Your task to perform on an android device: What's the weather going to be this weekend? Image 0: 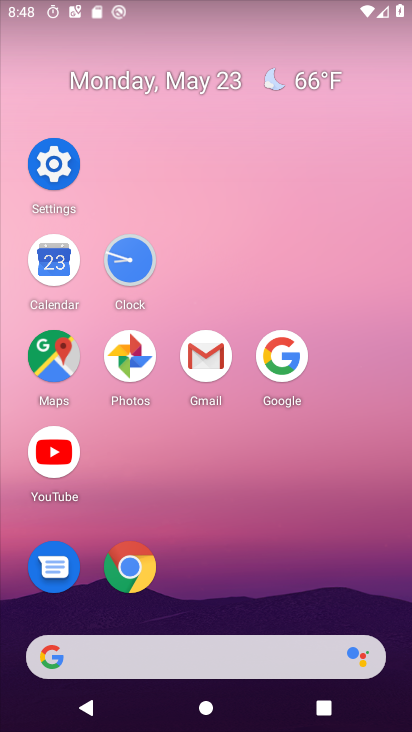
Step 0: click (273, 342)
Your task to perform on an android device: What's the weather going to be this weekend? Image 1: 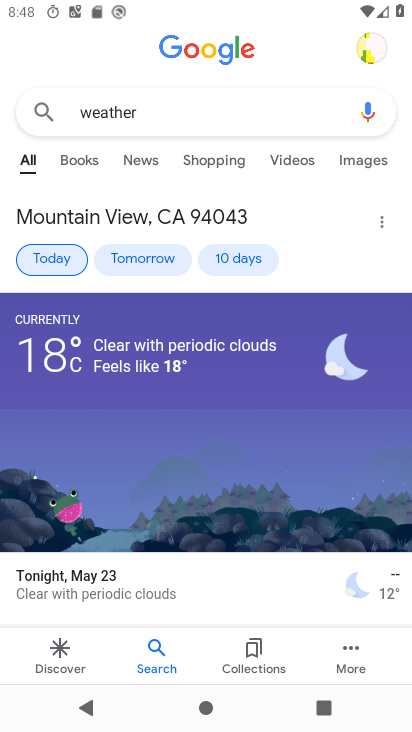
Step 1: click (246, 253)
Your task to perform on an android device: What's the weather going to be this weekend? Image 2: 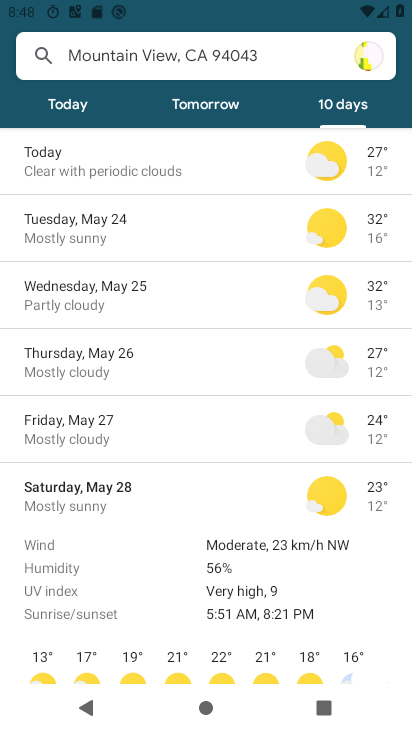
Step 2: task complete